Your task to perform on an android device: check battery use Image 0: 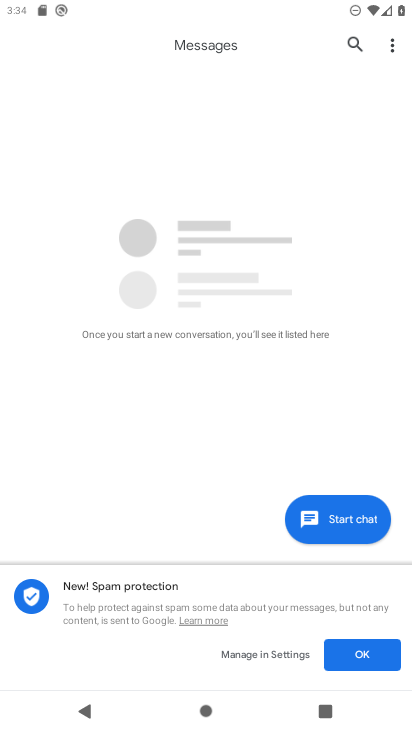
Step 0: press home button
Your task to perform on an android device: check battery use Image 1: 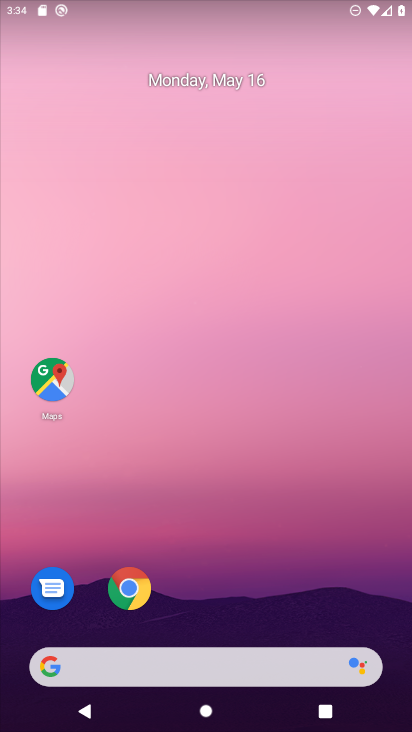
Step 1: drag from (292, 611) to (224, 0)
Your task to perform on an android device: check battery use Image 2: 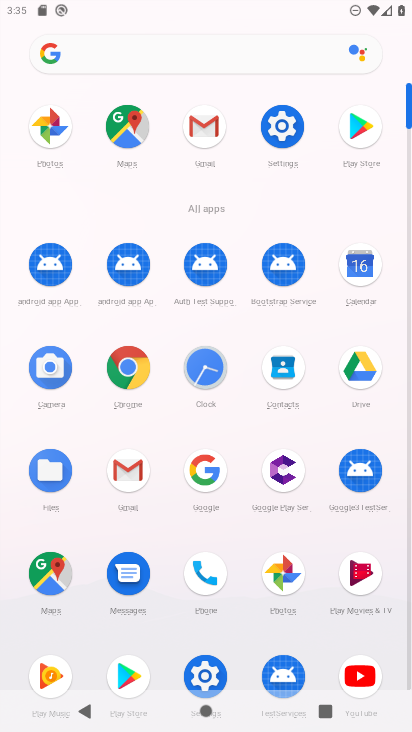
Step 2: click (290, 126)
Your task to perform on an android device: check battery use Image 3: 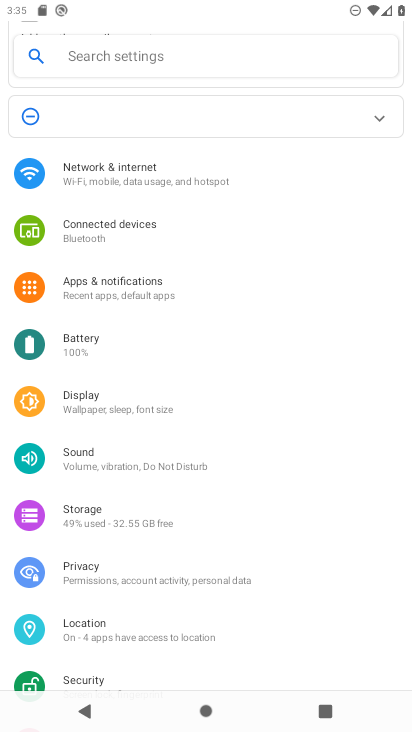
Step 3: click (77, 338)
Your task to perform on an android device: check battery use Image 4: 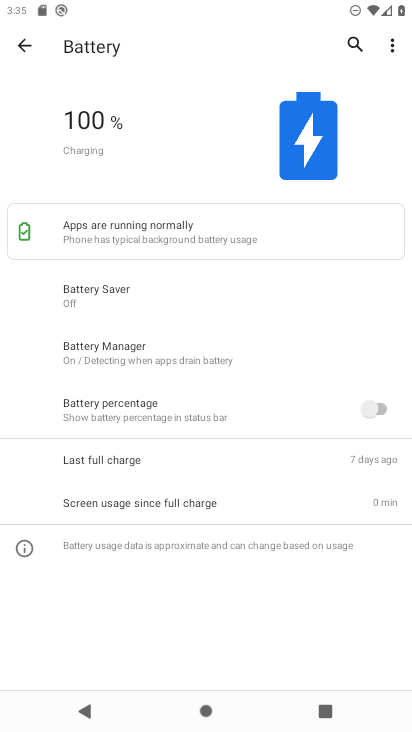
Step 4: task complete